Your task to perform on an android device: open app "Truecaller" (install if not already installed), go to login, and select forgot password Image 0: 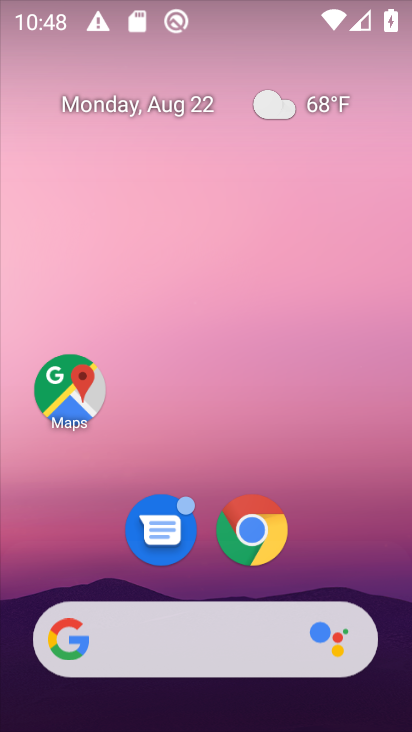
Step 0: drag from (143, 623) to (181, 1)
Your task to perform on an android device: open app "Truecaller" (install if not already installed), go to login, and select forgot password Image 1: 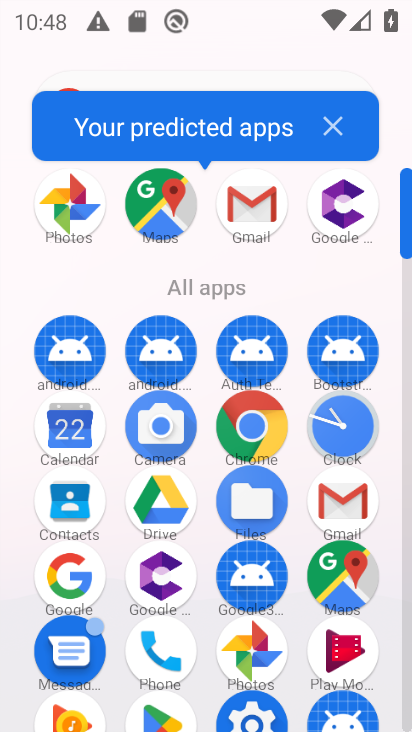
Step 1: drag from (288, 621) to (300, 245)
Your task to perform on an android device: open app "Truecaller" (install if not already installed), go to login, and select forgot password Image 2: 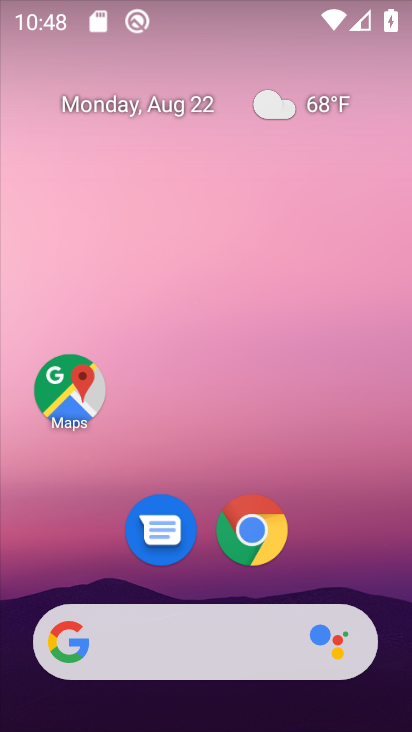
Step 2: drag from (221, 626) to (229, 8)
Your task to perform on an android device: open app "Truecaller" (install if not already installed), go to login, and select forgot password Image 3: 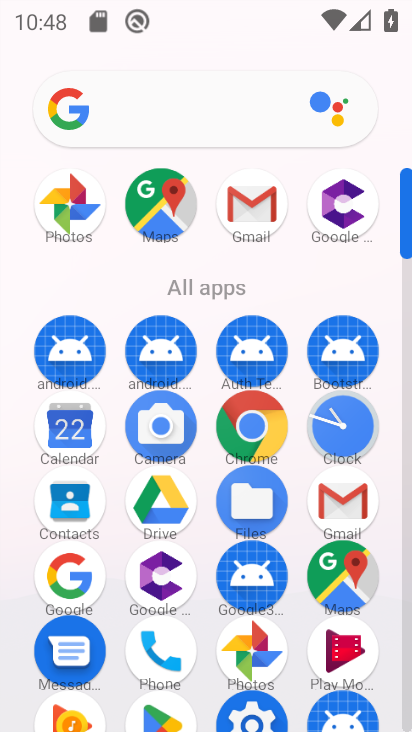
Step 3: drag from (109, 633) to (134, 283)
Your task to perform on an android device: open app "Truecaller" (install if not already installed), go to login, and select forgot password Image 4: 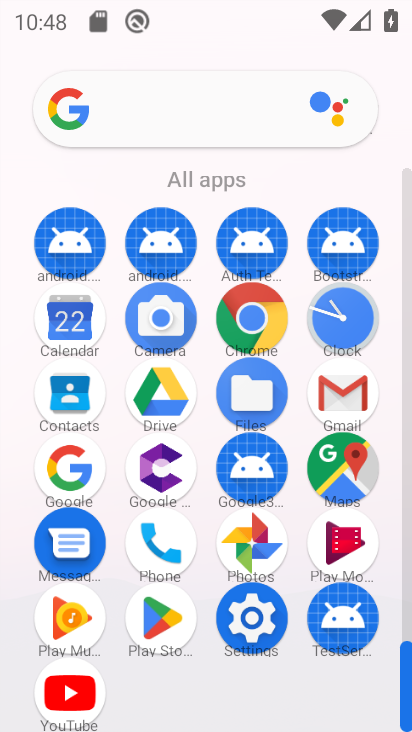
Step 4: click (161, 620)
Your task to perform on an android device: open app "Truecaller" (install if not already installed), go to login, and select forgot password Image 5: 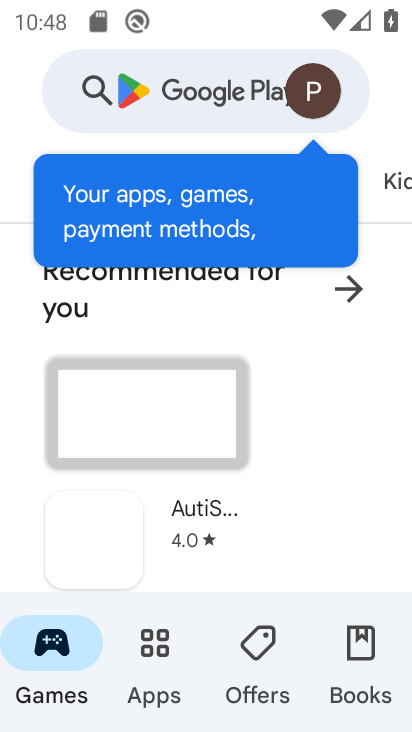
Step 5: click (149, 634)
Your task to perform on an android device: open app "Truecaller" (install if not already installed), go to login, and select forgot password Image 6: 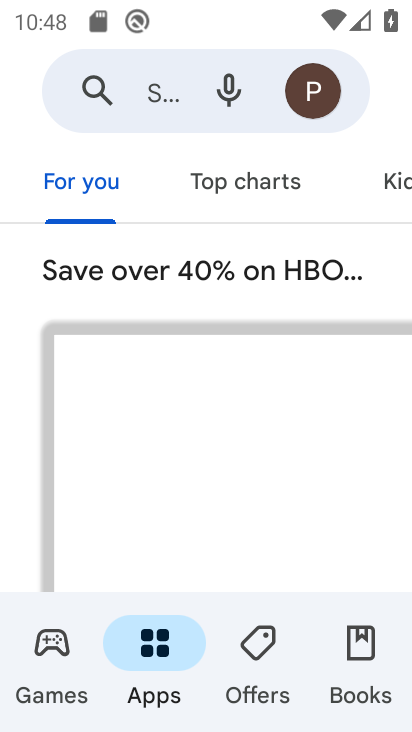
Step 6: click (167, 102)
Your task to perform on an android device: open app "Truecaller" (install if not already installed), go to login, and select forgot password Image 7: 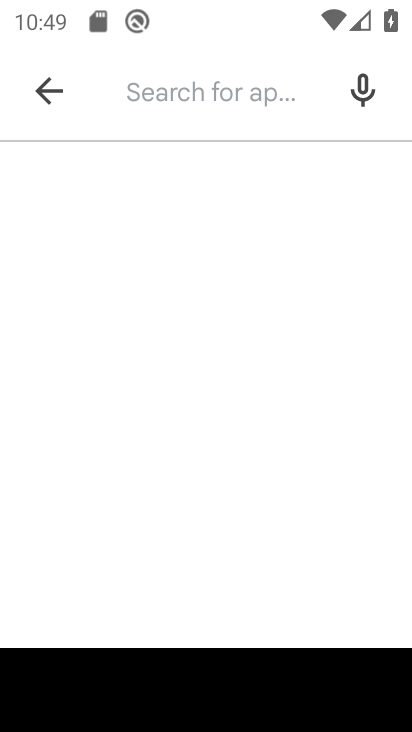
Step 7: type "Truecallar"
Your task to perform on an android device: open app "Truecaller" (install if not already installed), go to login, and select forgot password Image 8: 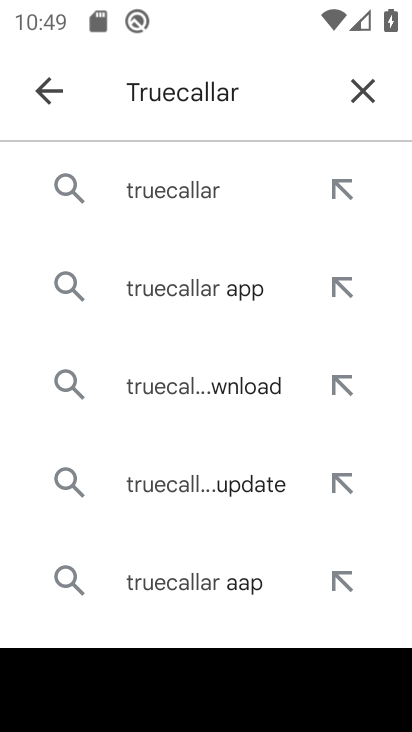
Step 8: click (138, 194)
Your task to perform on an android device: open app "Truecaller" (install if not already installed), go to login, and select forgot password Image 9: 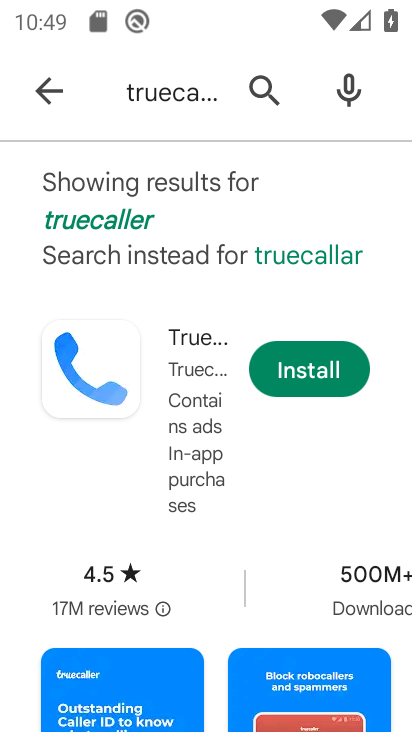
Step 9: click (314, 377)
Your task to perform on an android device: open app "Truecaller" (install if not already installed), go to login, and select forgot password Image 10: 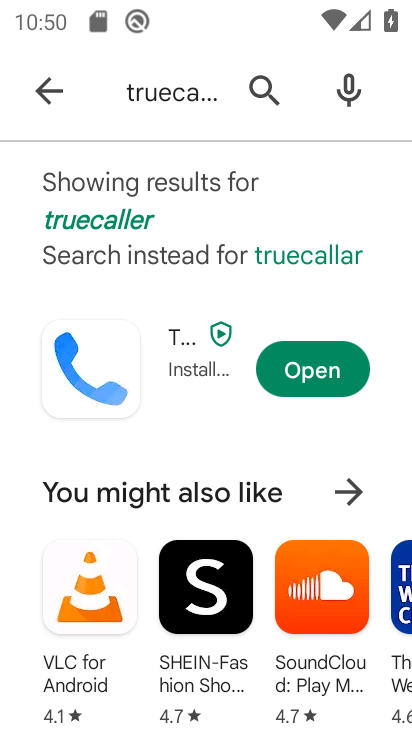
Step 10: click (297, 383)
Your task to perform on an android device: open app "Truecaller" (install if not already installed), go to login, and select forgot password Image 11: 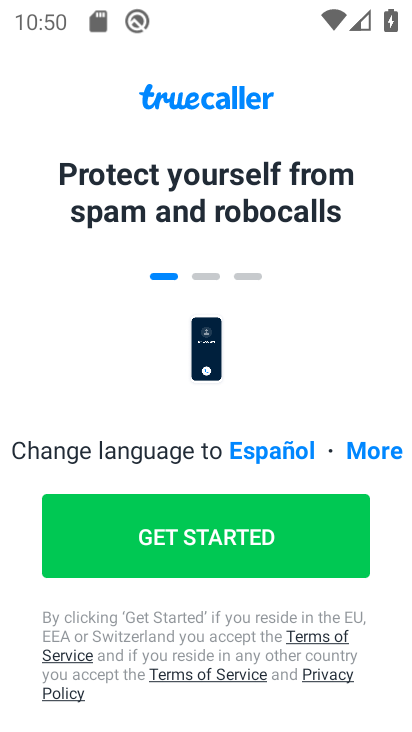
Step 11: task complete